Your task to perform on an android device: Search for pizza restaurants on Maps Image 0: 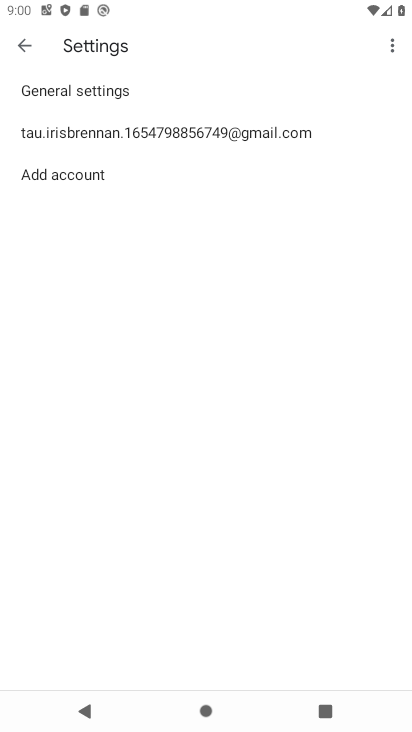
Step 0: press home button
Your task to perform on an android device: Search for pizza restaurants on Maps Image 1: 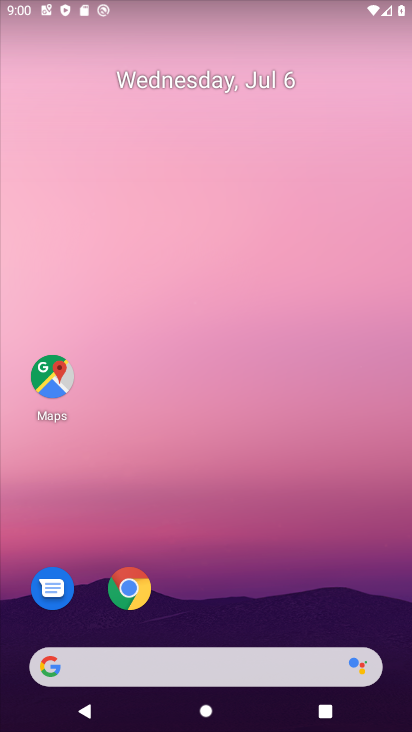
Step 1: click (43, 381)
Your task to perform on an android device: Search for pizza restaurants on Maps Image 2: 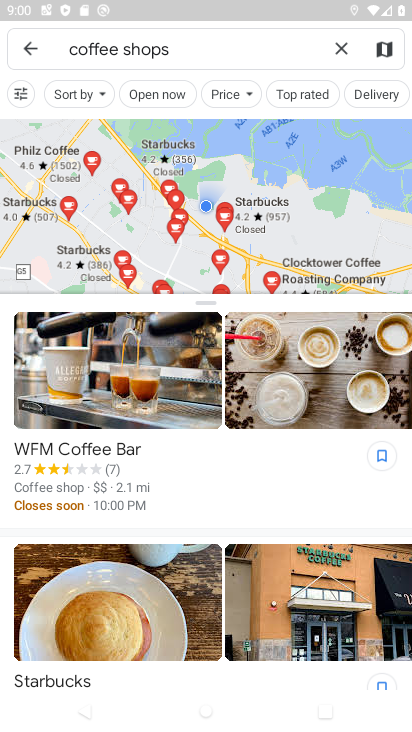
Step 2: click (338, 37)
Your task to perform on an android device: Search for pizza restaurants on Maps Image 3: 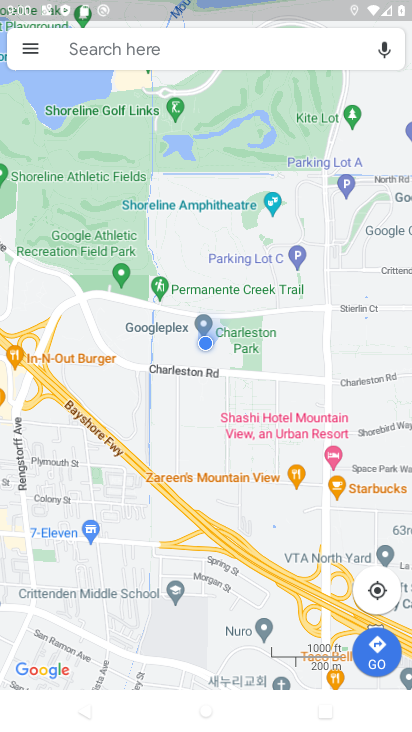
Step 3: click (175, 43)
Your task to perform on an android device: Search for pizza restaurants on Maps Image 4: 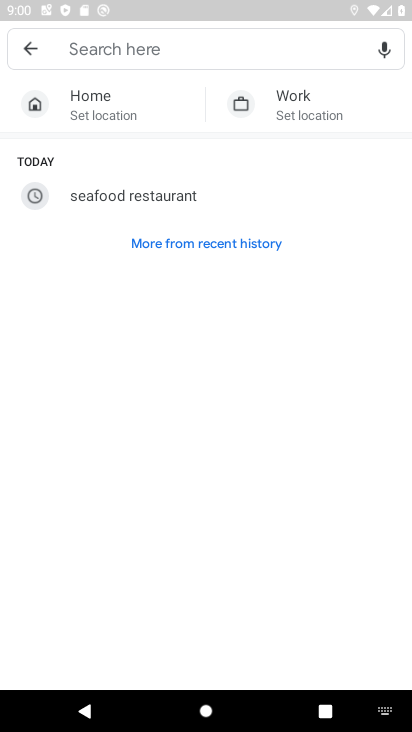
Step 4: type "pizza restaurants"
Your task to perform on an android device: Search for pizza restaurants on Maps Image 5: 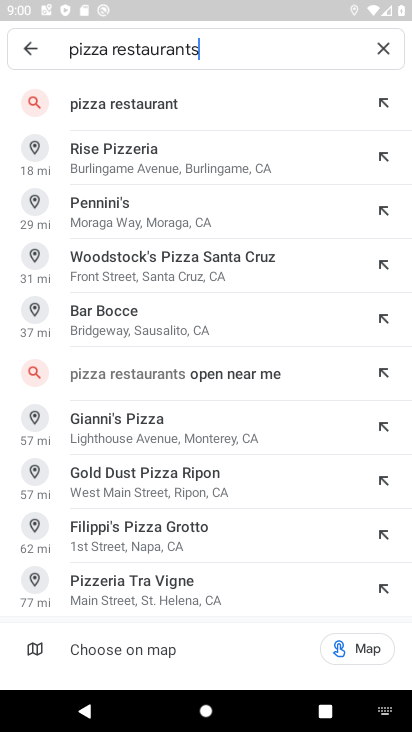
Step 5: click (119, 113)
Your task to perform on an android device: Search for pizza restaurants on Maps Image 6: 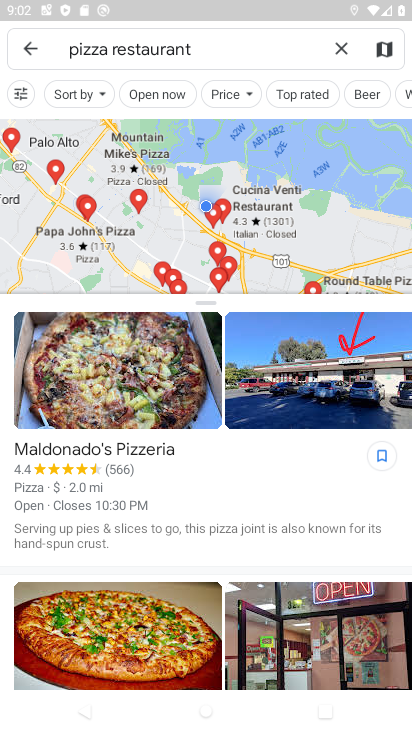
Step 6: task complete